Your task to perform on an android device: Open calendar and show me the fourth week of next month Image 0: 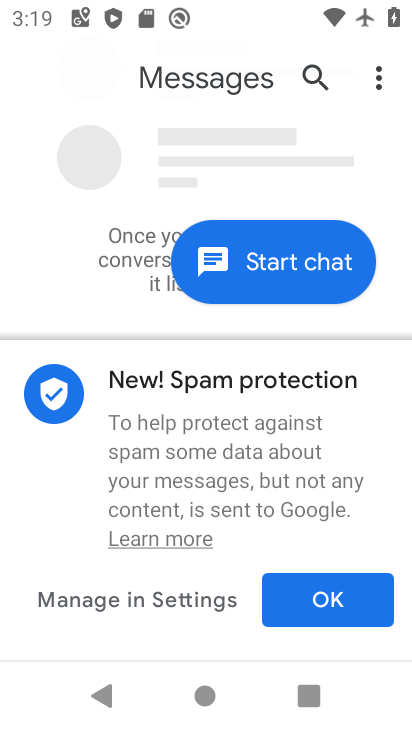
Step 0: press home button
Your task to perform on an android device: Open calendar and show me the fourth week of next month Image 1: 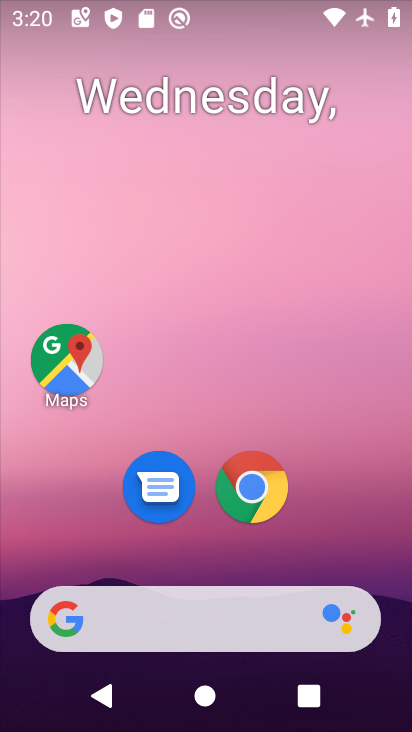
Step 1: drag from (348, 567) to (371, 59)
Your task to perform on an android device: Open calendar and show me the fourth week of next month Image 2: 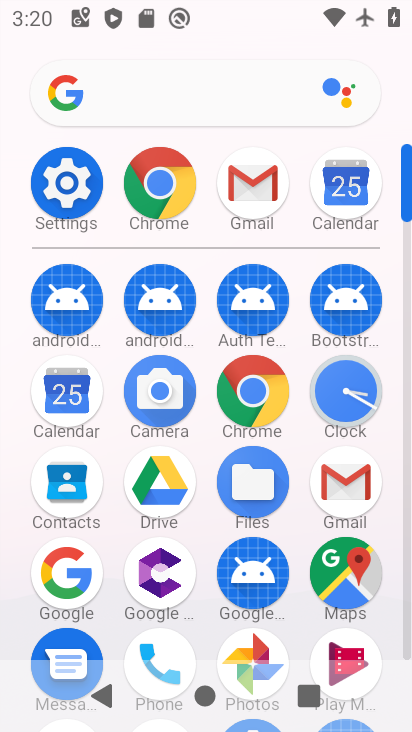
Step 2: click (75, 399)
Your task to perform on an android device: Open calendar and show me the fourth week of next month Image 3: 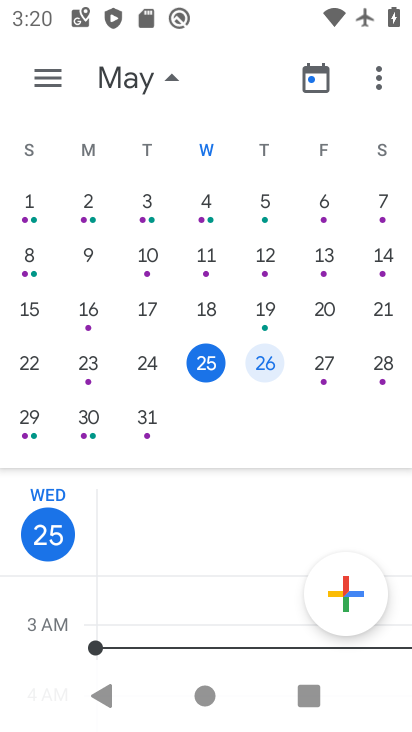
Step 3: drag from (320, 276) to (13, 266)
Your task to perform on an android device: Open calendar and show me the fourth week of next month Image 4: 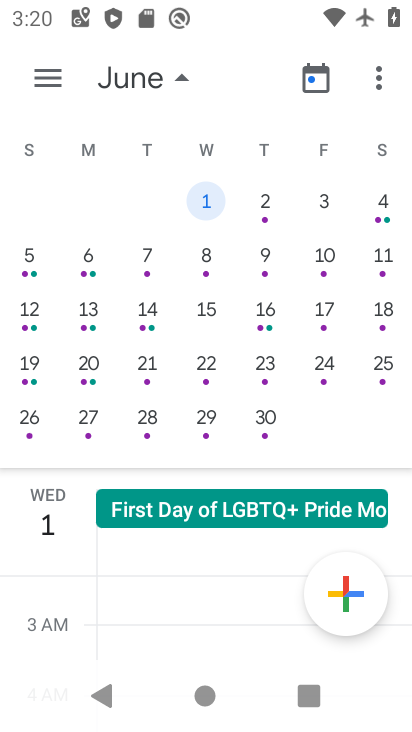
Step 4: click (148, 430)
Your task to perform on an android device: Open calendar and show me the fourth week of next month Image 5: 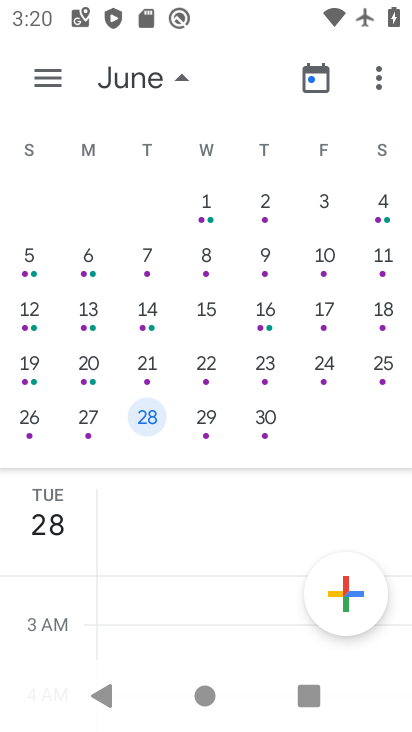
Step 5: click (150, 423)
Your task to perform on an android device: Open calendar and show me the fourth week of next month Image 6: 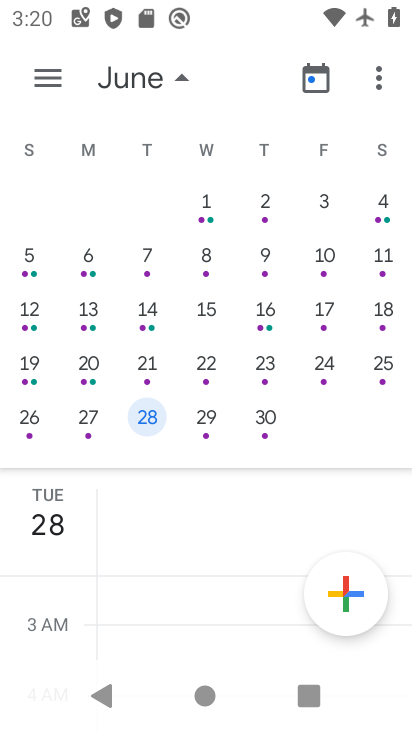
Step 6: task complete